Your task to perform on an android device: Turn on the flashlight Image 0: 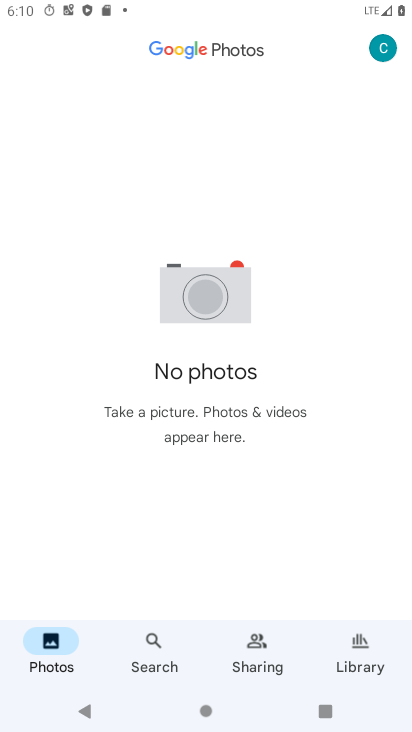
Step 0: press home button
Your task to perform on an android device: Turn on the flashlight Image 1: 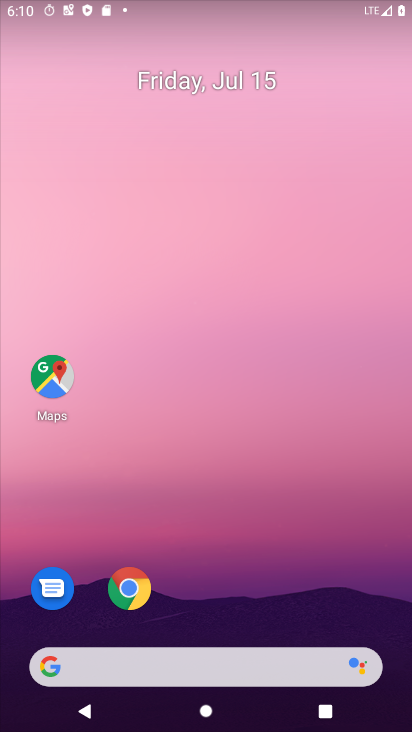
Step 1: task complete